Your task to perform on an android device: turn on data saver in the chrome app Image 0: 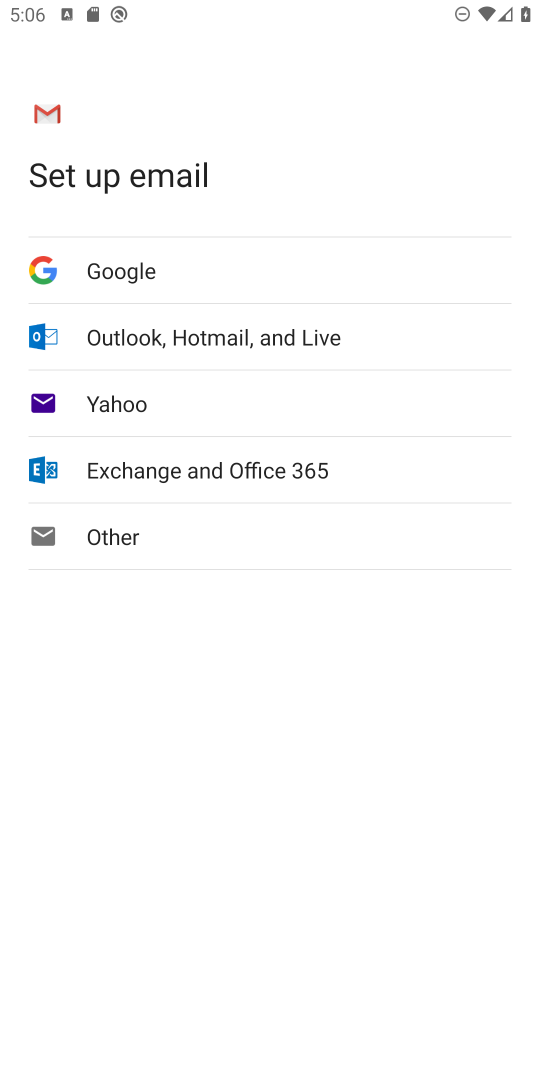
Step 0: press home button
Your task to perform on an android device: turn on data saver in the chrome app Image 1: 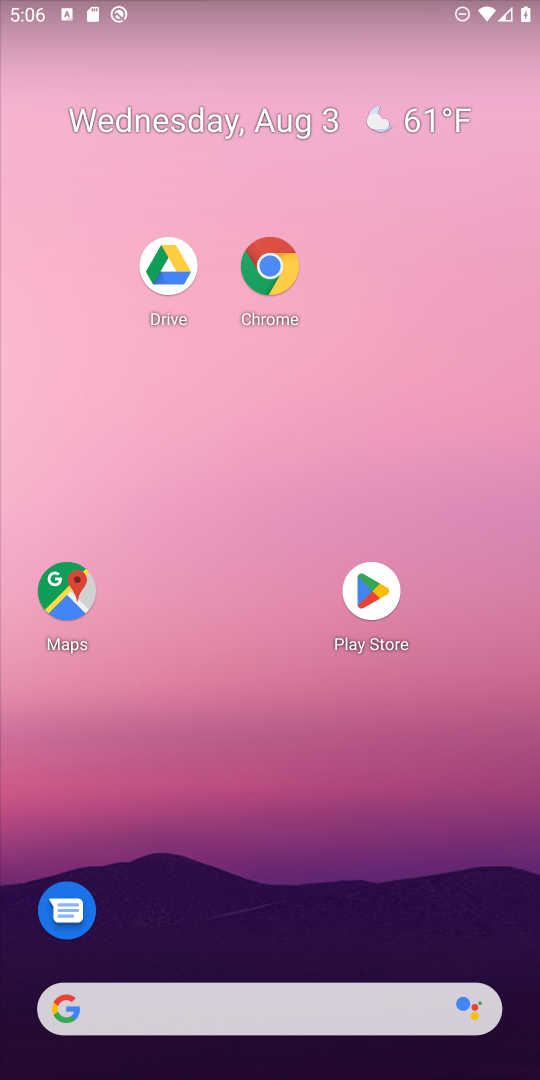
Step 1: drag from (408, 1008) to (528, 245)
Your task to perform on an android device: turn on data saver in the chrome app Image 2: 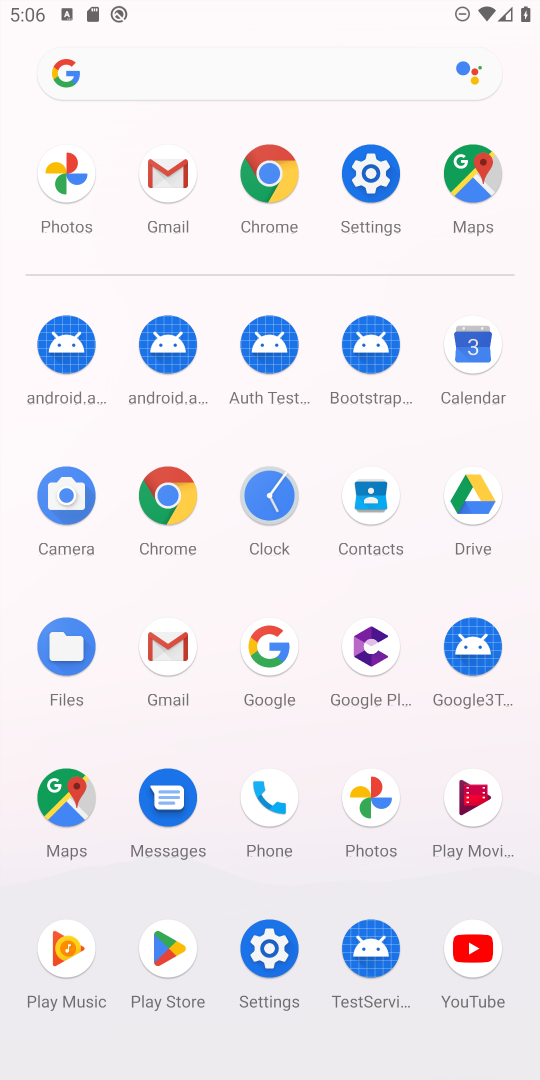
Step 2: click (161, 500)
Your task to perform on an android device: turn on data saver in the chrome app Image 3: 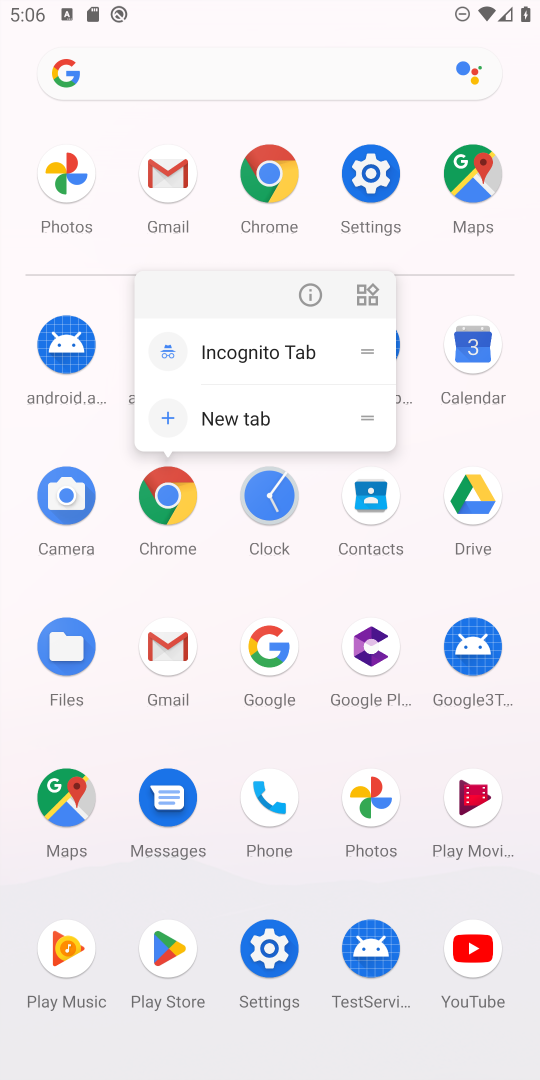
Step 3: click (157, 491)
Your task to perform on an android device: turn on data saver in the chrome app Image 4: 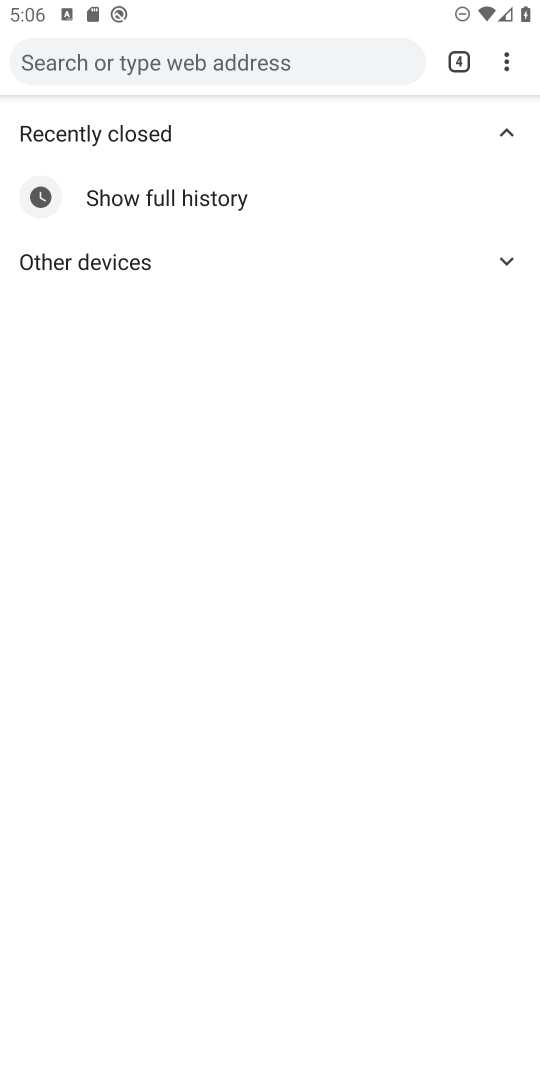
Step 4: drag from (510, 55) to (306, 523)
Your task to perform on an android device: turn on data saver in the chrome app Image 5: 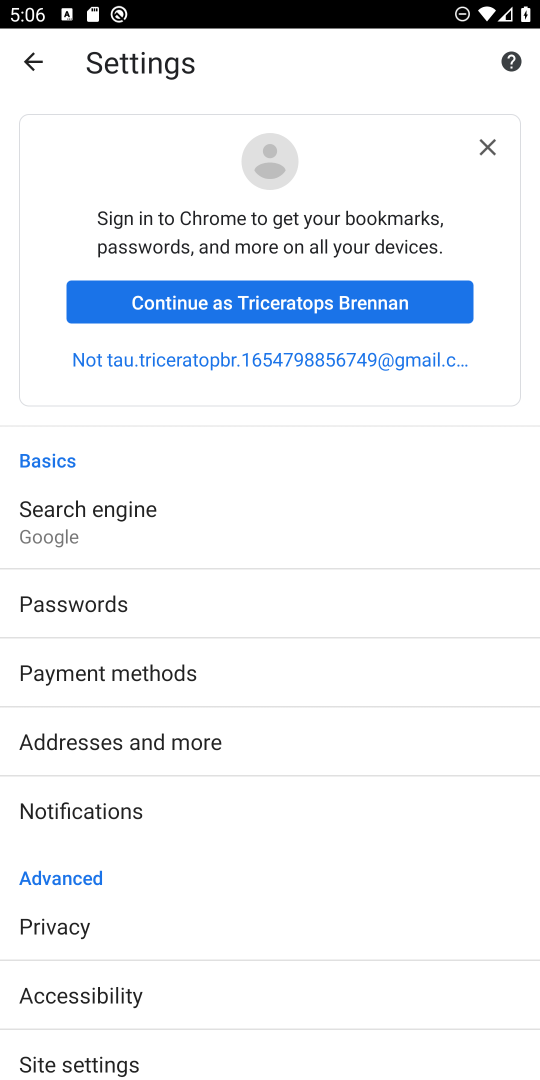
Step 5: drag from (204, 967) to (274, 341)
Your task to perform on an android device: turn on data saver in the chrome app Image 6: 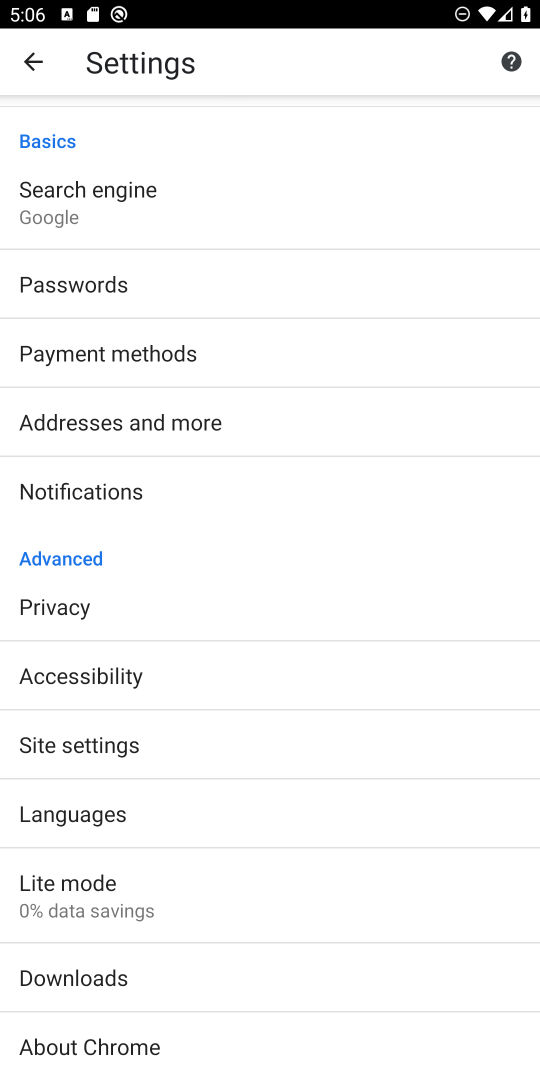
Step 6: click (170, 899)
Your task to perform on an android device: turn on data saver in the chrome app Image 7: 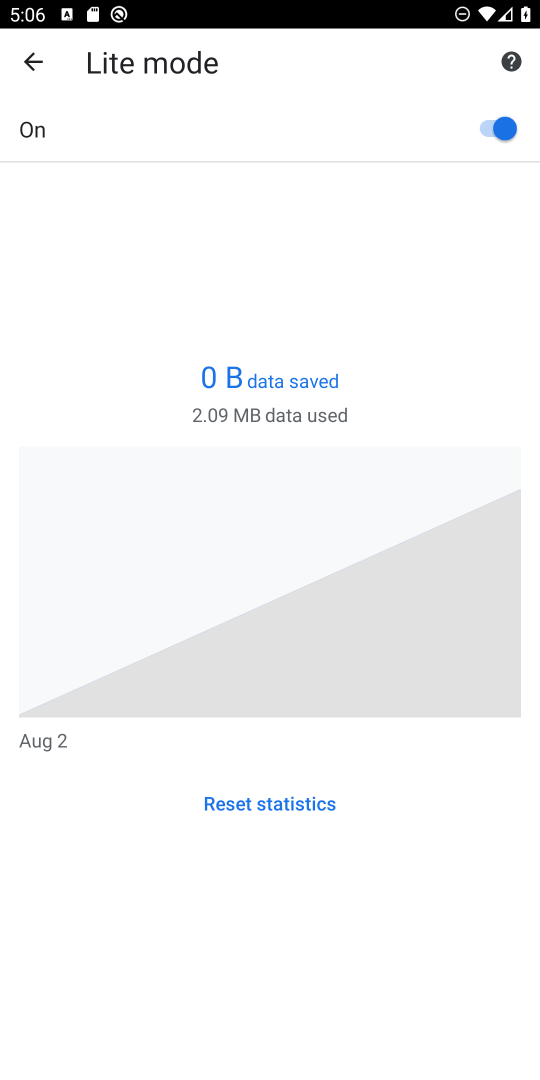
Step 7: task complete